Your task to perform on an android device: turn on sleep mode Image 0: 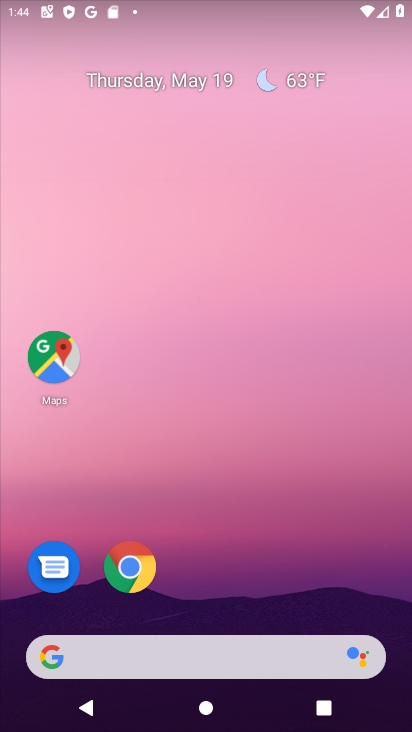
Step 0: click (219, 60)
Your task to perform on an android device: turn on sleep mode Image 1: 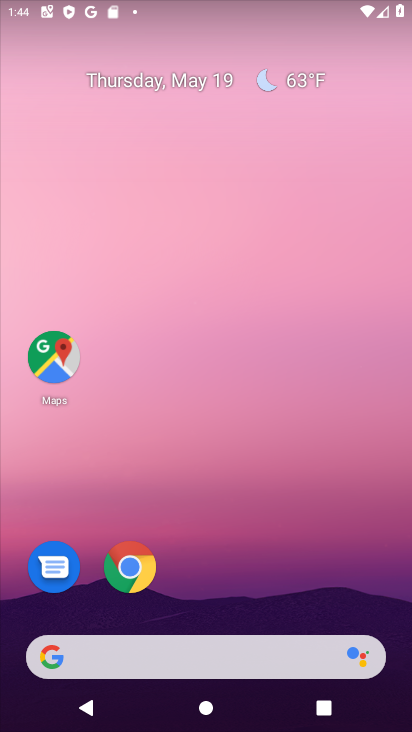
Step 1: drag from (333, 472) to (241, 56)
Your task to perform on an android device: turn on sleep mode Image 2: 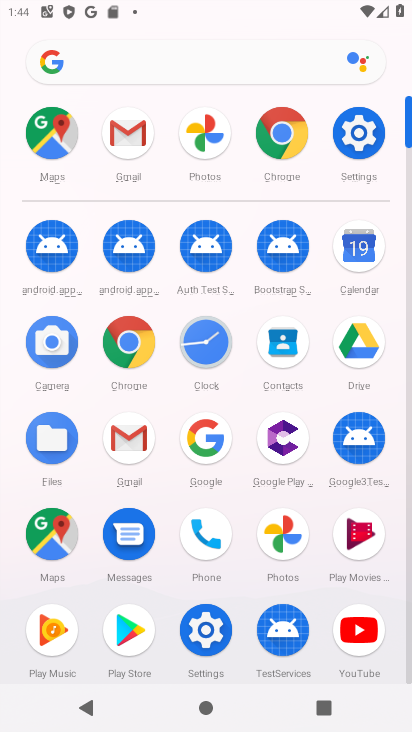
Step 2: click (356, 137)
Your task to perform on an android device: turn on sleep mode Image 3: 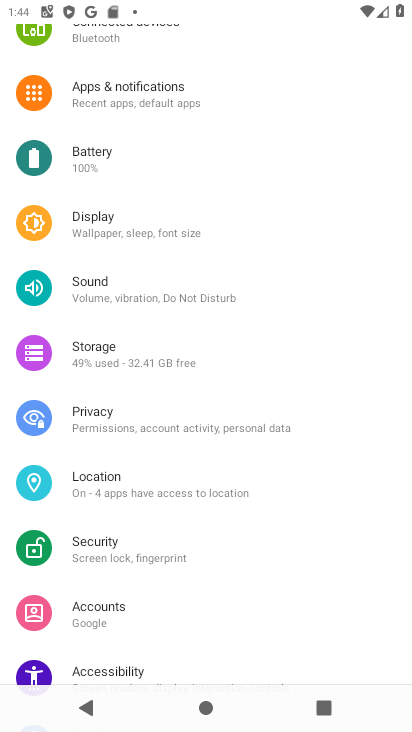
Step 3: click (99, 230)
Your task to perform on an android device: turn on sleep mode Image 4: 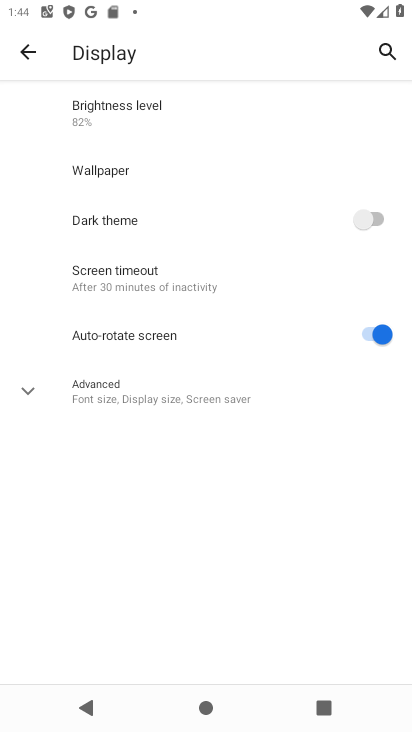
Step 4: click (77, 282)
Your task to perform on an android device: turn on sleep mode Image 5: 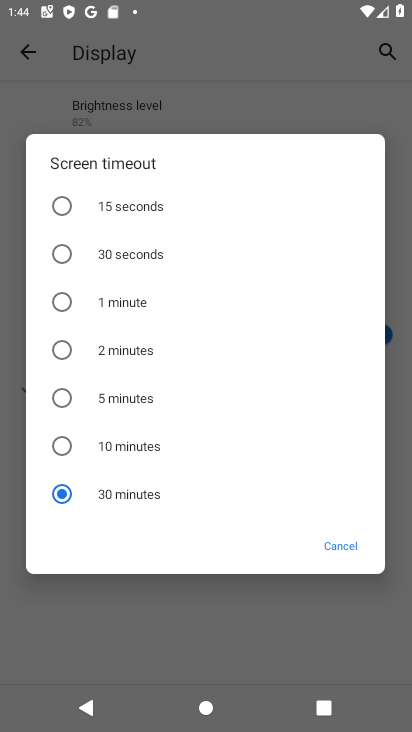
Step 5: task complete